Your task to perform on an android device: Is it going to rain today? Image 0: 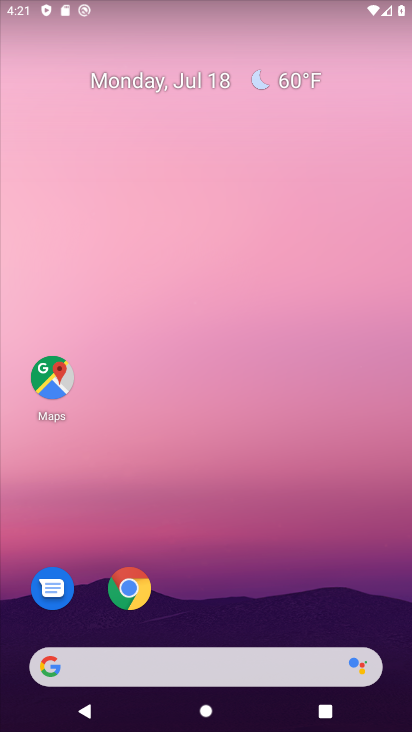
Step 0: click (167, 659)
Your task to perform on an android device: Is it going to rain today? Image 1: 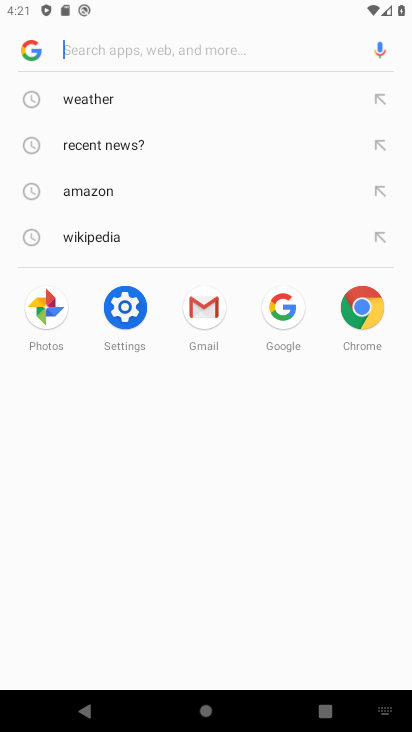
Step 1: click (115, 97)
Your task to perform on an android device: Is it going to rain today? Image 2: 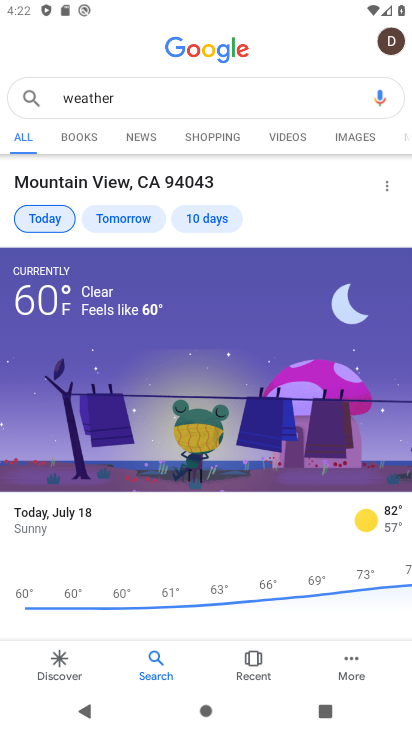
Step 2: task complete